Your task to perform on an android device: Open privacy settings Image 0: 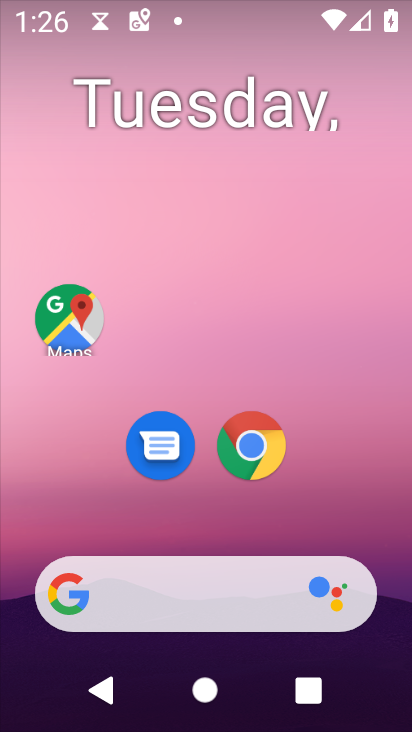
Step 0: drag from (318, 543) to (341, 44)
Your task to perform on an android device: Open privacy settings Image 1: 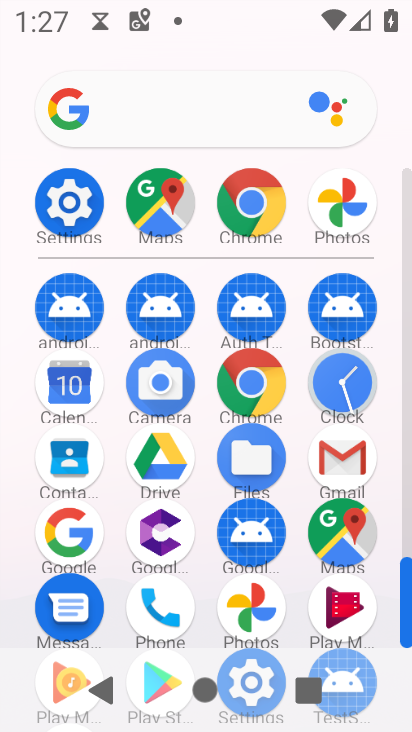
Step 1: click (61, 193)
Your task to perform on an android device: Open privacy settings Image 2: 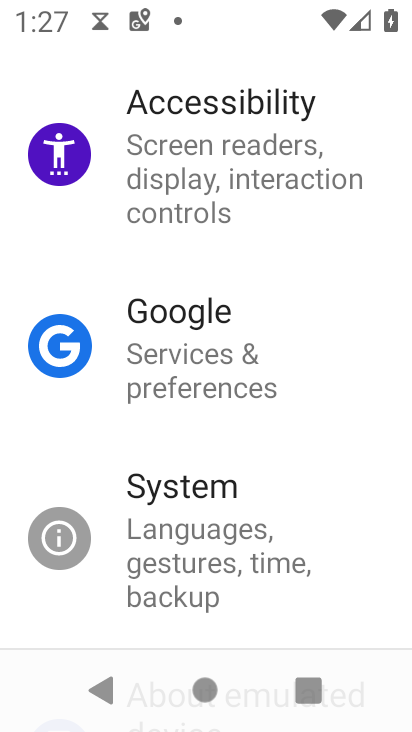
Step 2: drag from (193, 575) to (235, 142)
Your task to perform on an android device: Open privacy settings Image 3: 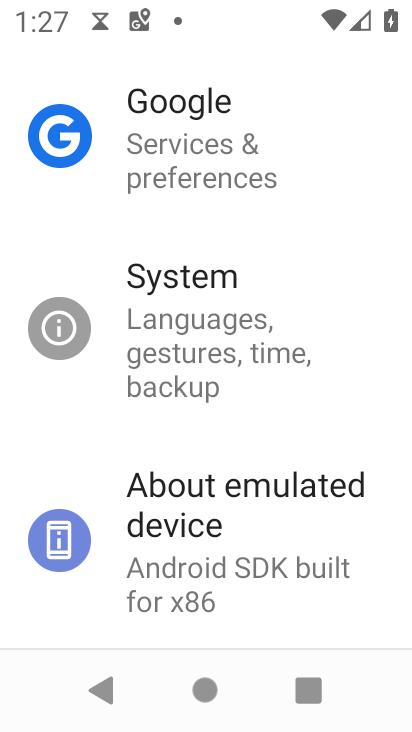
Step 3: drag from (265, 158) to (273, 579)
Your task to perform on an android device: Open privacy settings Image 4: 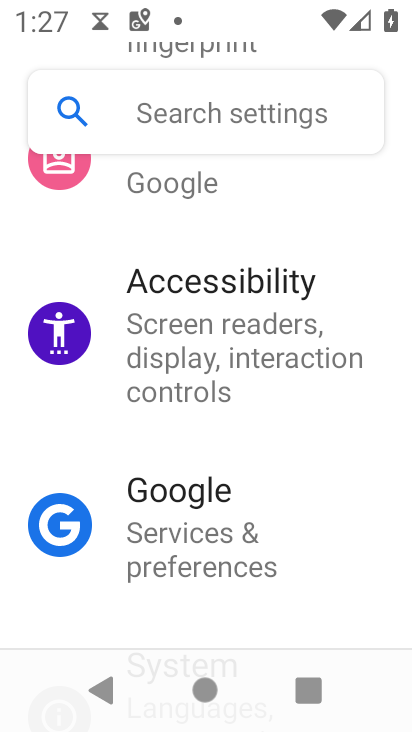
Step 4: drag from (301, 267) to (270, 678)
Your task to perform on an android device: Open privacy settings Image 5: 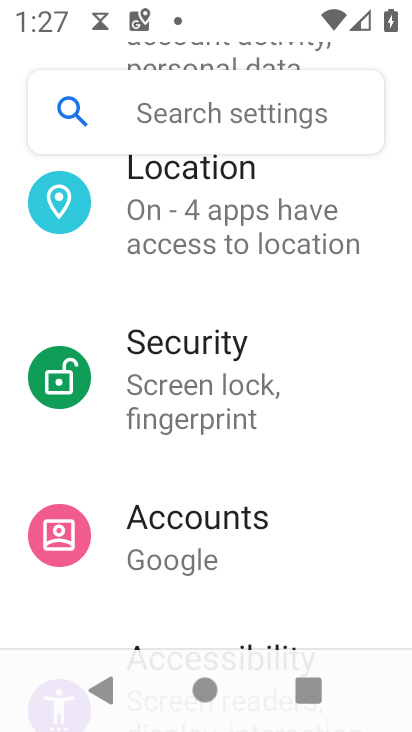
Step 5: drag from (264, 288) to (254, 574)
Your task to perform on an android device: Open privacy settings Image 6: 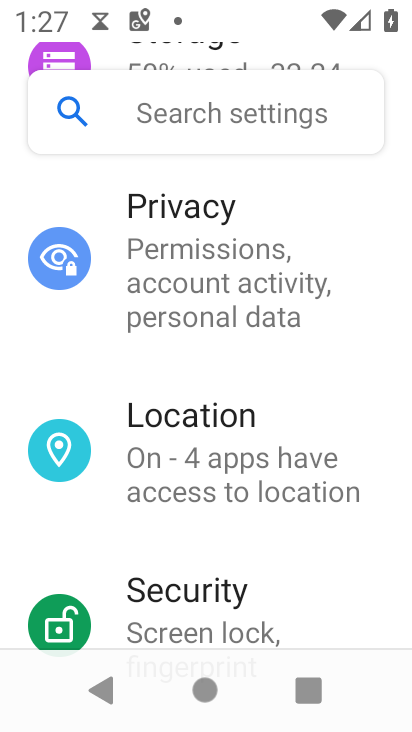
Step 6: click (260, 280)
Your task to perform on an android device: Open privacy settings Image 7: 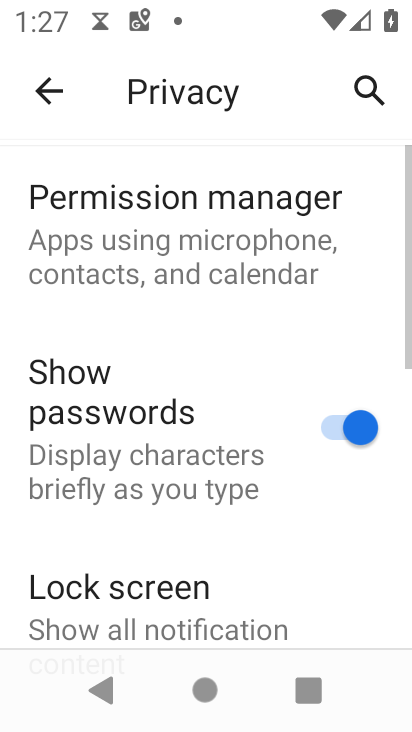
Step 7: task complete